Your task to perform on an android device: create a new album in the google photos Image 0: 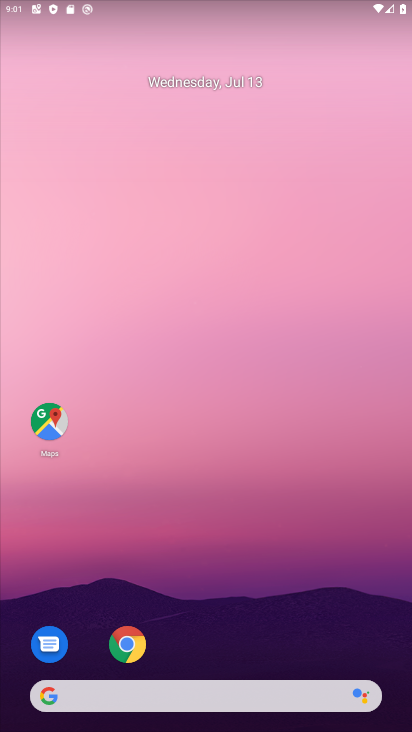
Step 0: drag from (230, 726) to (237, 58)
Your task to perform on an android device: create a new album in the google photos Image 1: 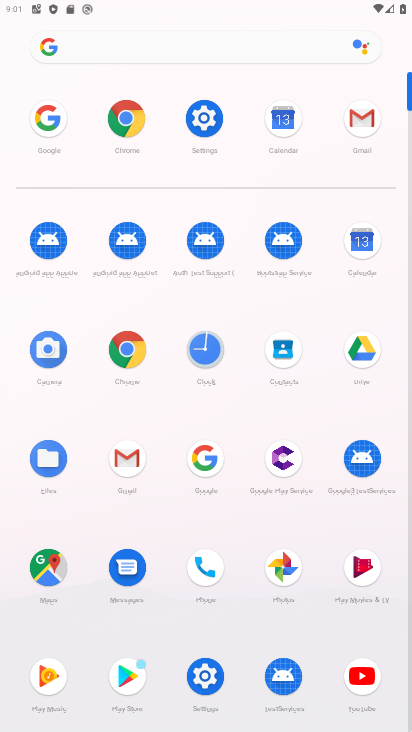
Step 1: click (286, 568)
Your task to perform on an android device: create a new album in the google photos Image 2: 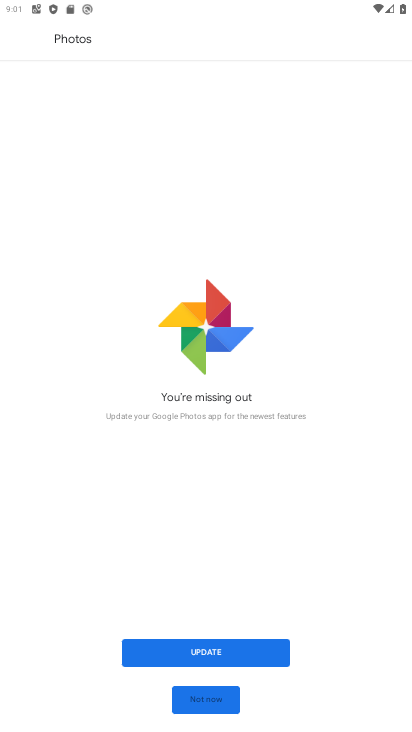
Step 2: task complete